Your task to perform on an android device: toggle location history Image 0: 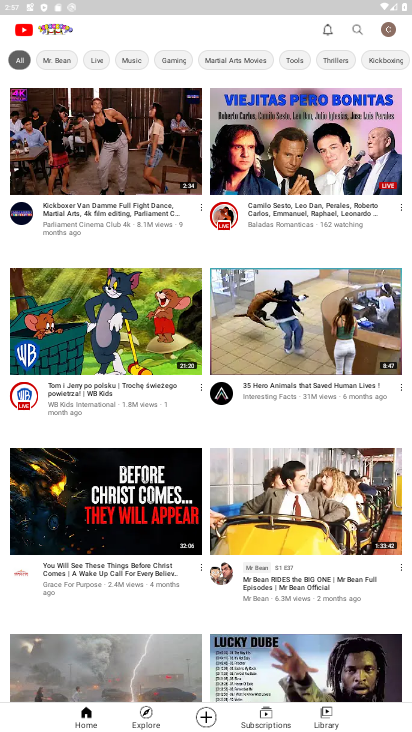
Step 0: press home button
Your task to perform on an android device: toggle location history Image 1: 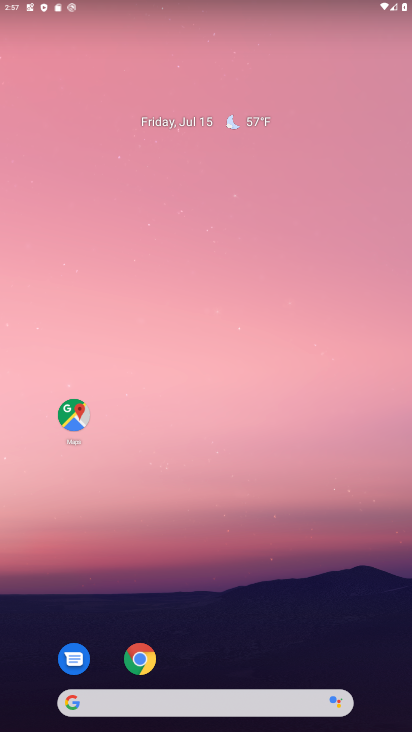
Step 1: drag from (241, 633) to (261, 196)
Your task to perform on an android device: toggle location history Image 2: 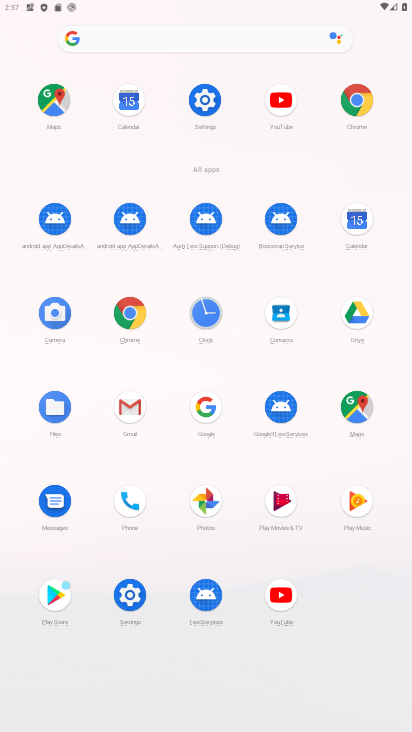
Step 2: click (135, 601)
Your task to perform on an android device: toggle location history Image 3: 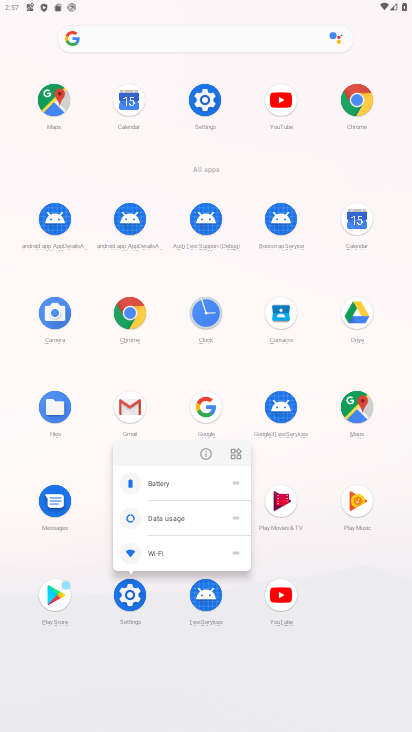
Step 3: click (136, 599)
Your task to perform on an android device: toggle location history Image 4: 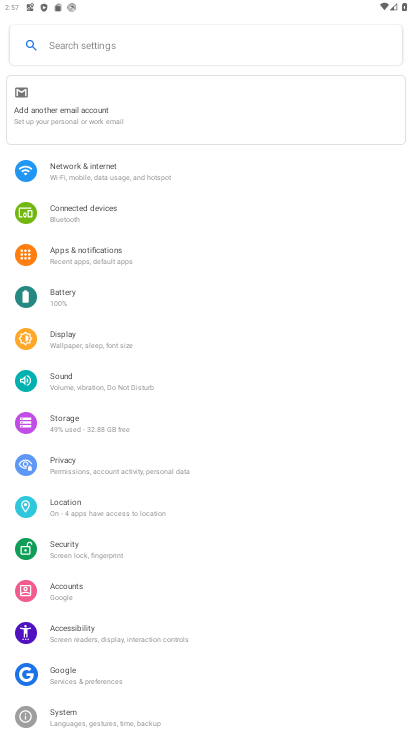
Step 4: click (89, 514)
Your task to perform on an android device: toggle location history Image 5: 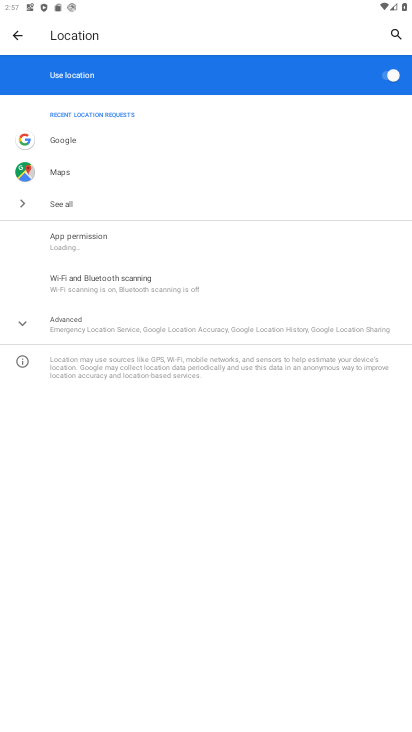
Step 5: click (116, 326)
Your task to perform on an android device: toggle location history Image 6: 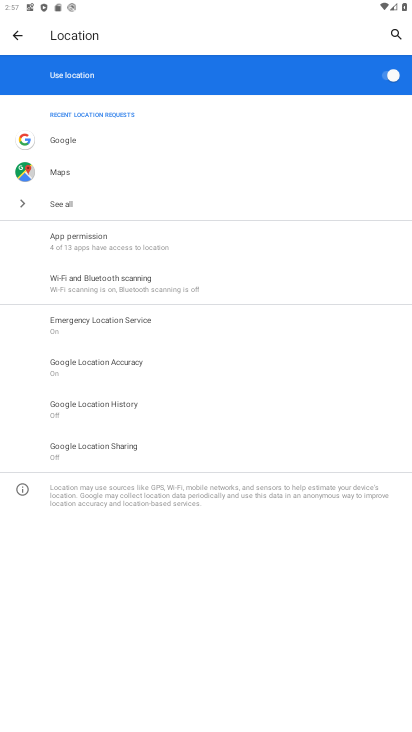
Step 6: click (120, 412)
Your task to perform on an android device: toggle location history Image 7: 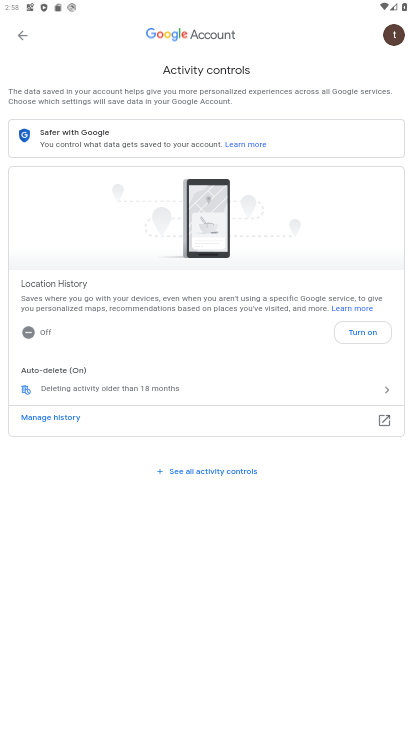
Step 7: click (364, 328)
Your task to perform on an android device: toggle location history Image 8: 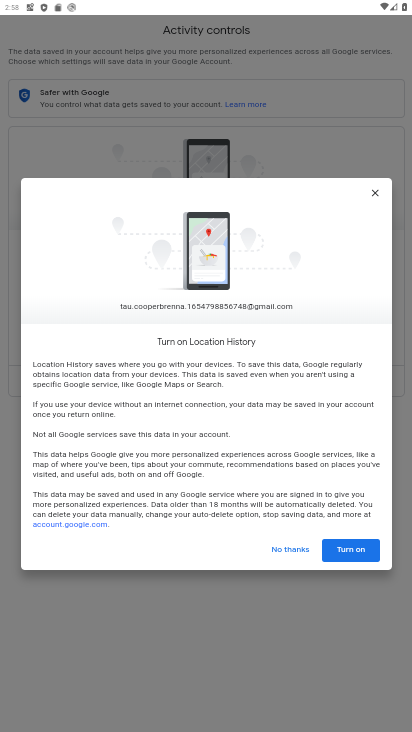
Step 8: click (352, 555)
Your task to perform on an android device: toggle location history Image 9: 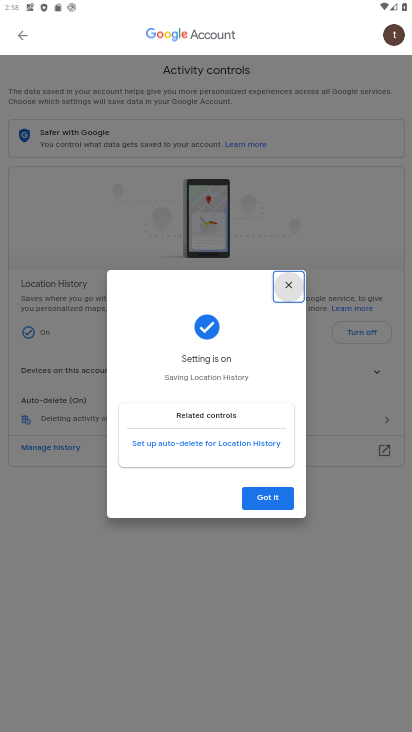
Step 9: click (260, 492)
Your task to perform on an android device: toggle location history Image 10: 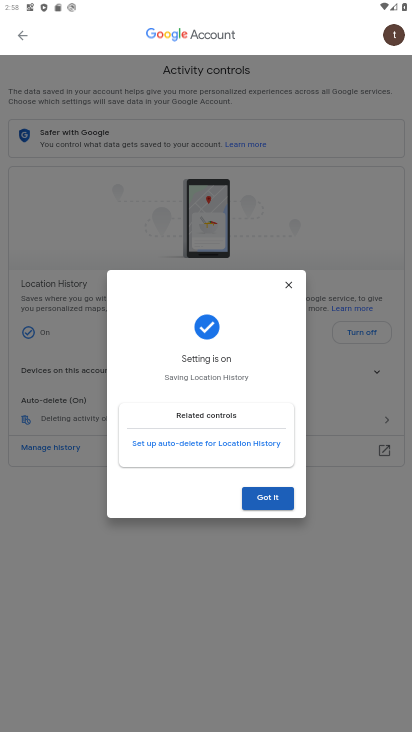
Step 10: click (260, 492)
Your task to perform on an android device: toggle location history Image 11: 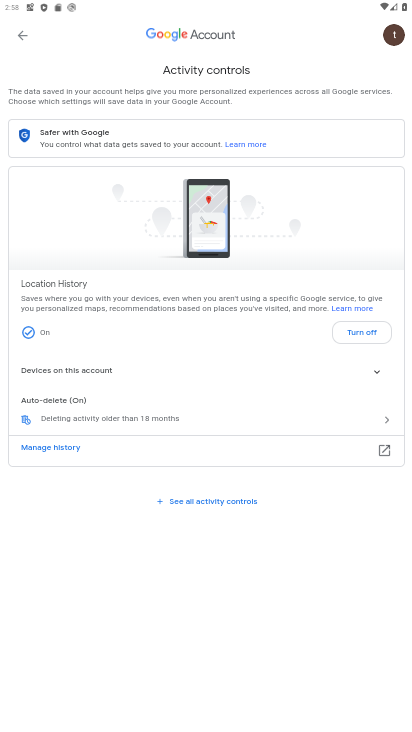
Step 11: task complete